Your task to perform on an android device: set default search engine in the chrome app Image 0: 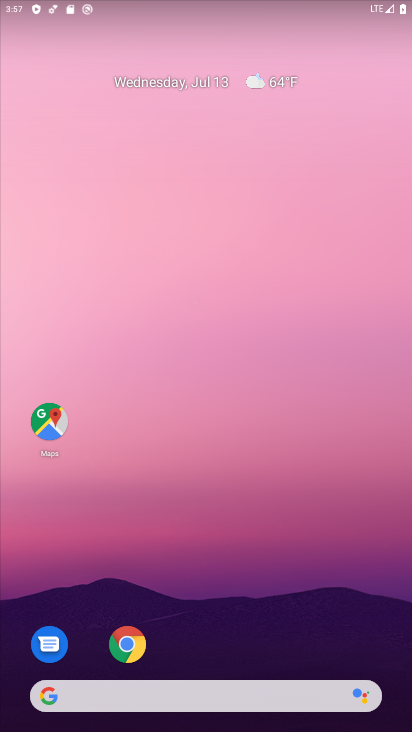
Step 0: click (111, 646)
Your task to perform on an android device: set default search engine in the chrome app Image 1: 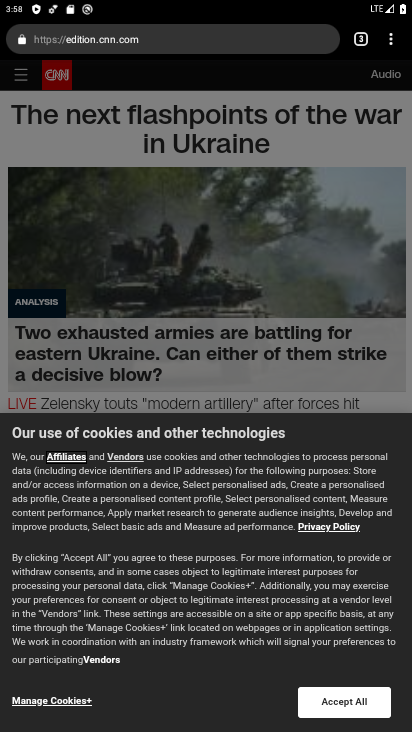
Step 1: drag from (393, 32) to (254, 433)
Your task to perform on an android device: set default search engine in the chrome app Image 2: 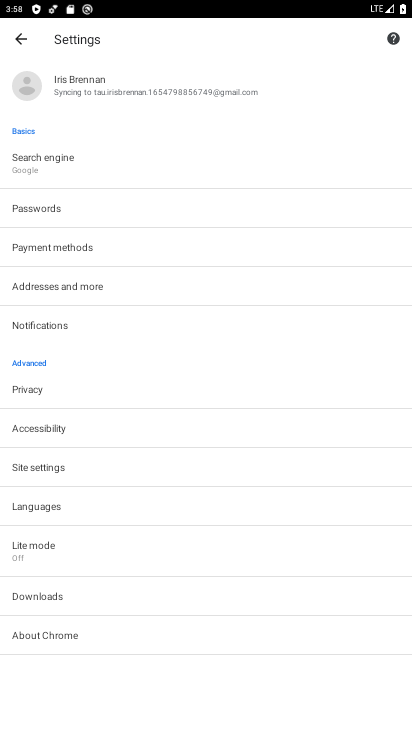
Step 2: click (36, 165)
Your task to perform on an android device: set default search engine in the chrome app Image 3: 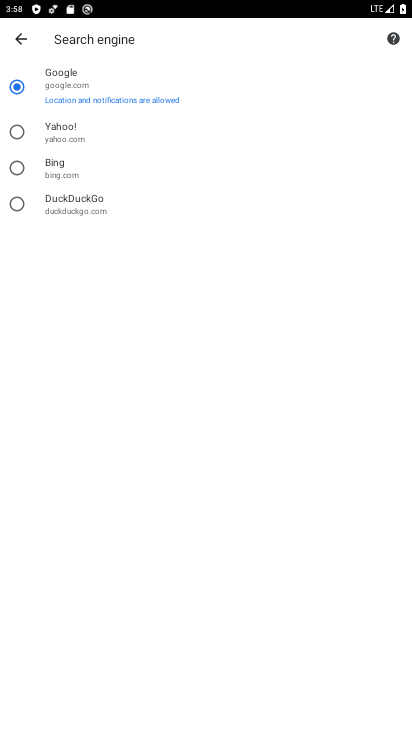
Step 3: click (76, 137)
Your task to perform on an android device: set default search engine in the chrome app Image 4: 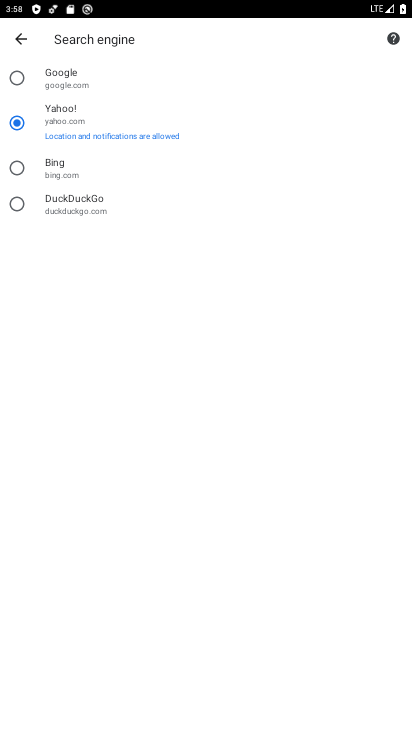
Step 4: task complete